Your task to perform on an android device: empty trash in google photos Image 0: 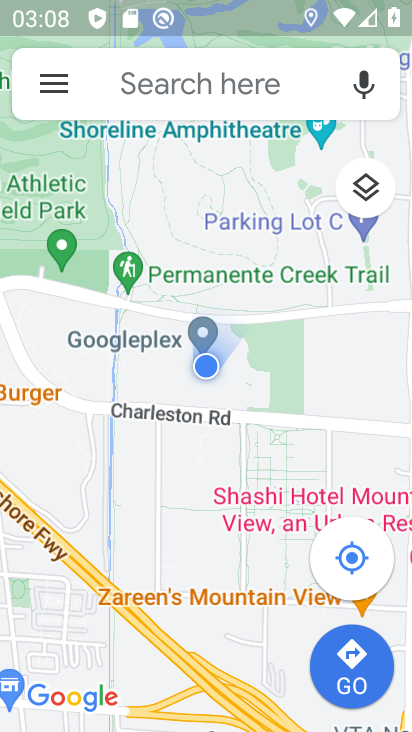
Step 0: press back button
Your task to perform on an android device: empty trash in google photos Image 1: 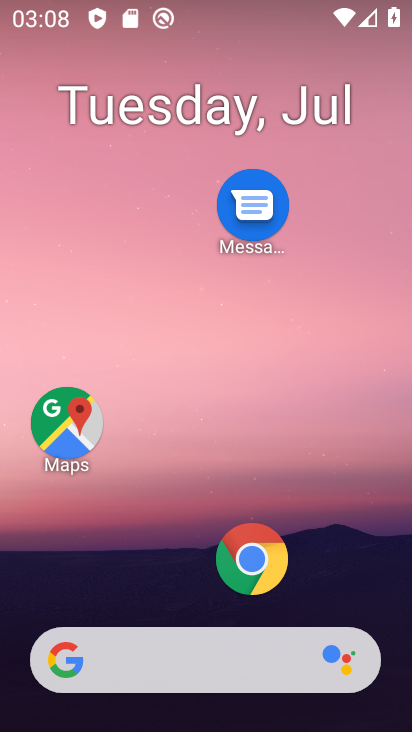
Step 1: drag from (119, 584) to (184, 16)
Your task to perform on an android device: empty trash in google photos Image 2: 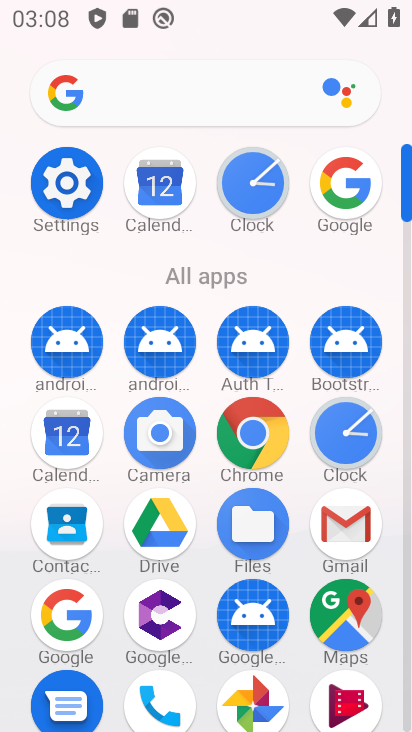
Step 2: click (248, 711)
Your task to perform on an android device: empty trash in google photos Image 3: 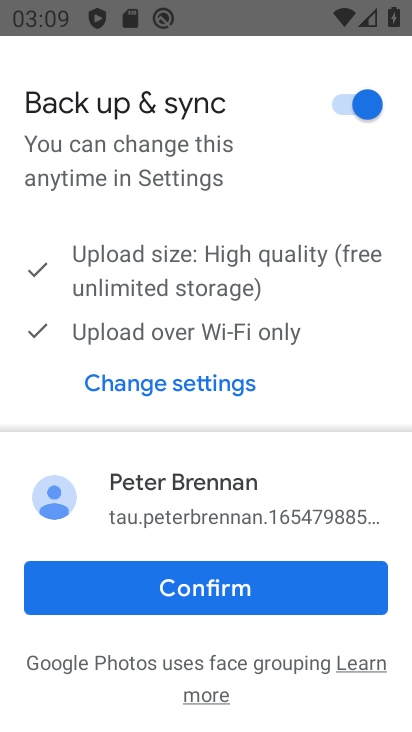
Step 3: click (211, 585)
Your task to perform on an android device: empty trash in google photos Image 4: 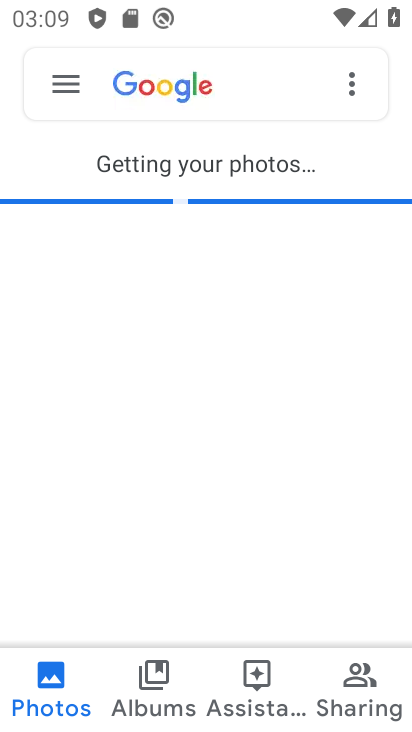
Step 4: click (58, 82)
Your task to perform on an android device: empty trash in google photos Image 5: 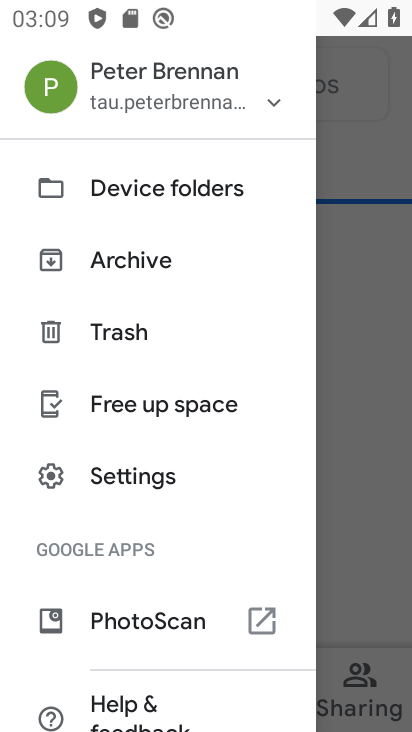
Step 5: click (129, 344)
Your task to perform on an android device: empty trash in google photos Image 6: 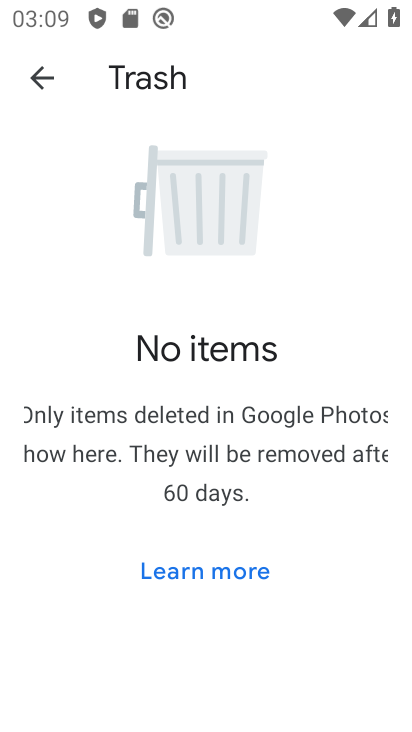
Step 6: task complete